Your task to perform on an android device: find which apps use the phone's location Image 0: 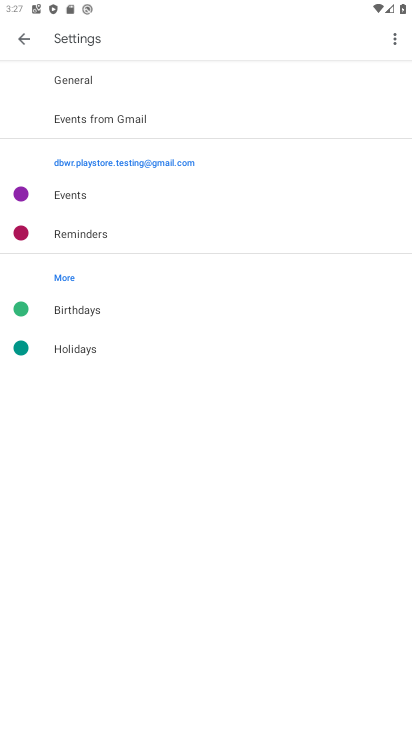
Step 0: press home button
Your task to perform on an android device: find which apps use the phone's location Image 1: 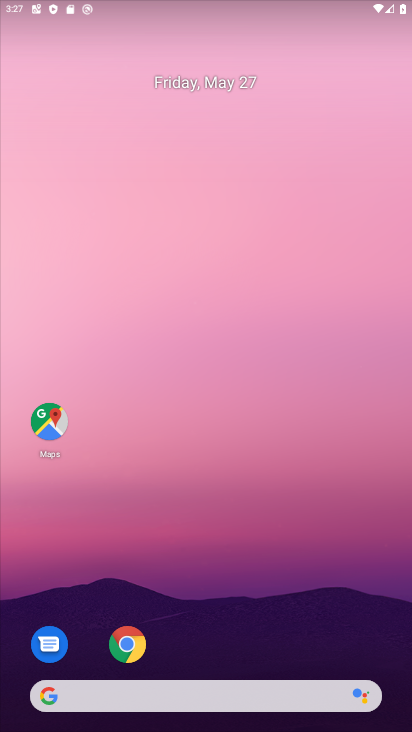
Step 1: drag from (211, 322) to (126, 84)
Your task to perform on an android device: find which apps use the phone's location Image 2: 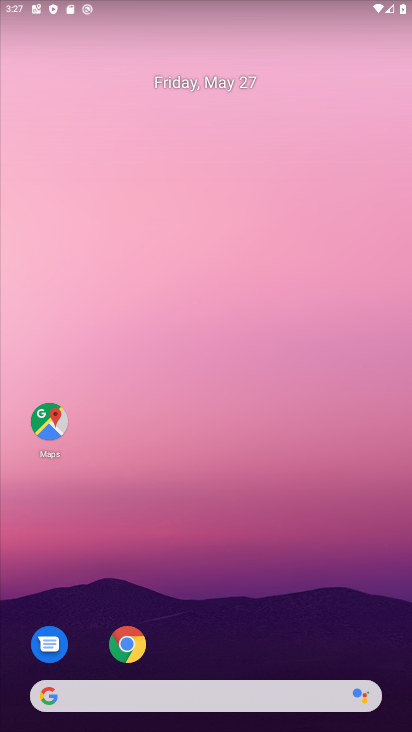
Step 2: drag from (240, 507) to (82, 0)
Your task to perform on an android device: find which apps use the phone's location Image 3: 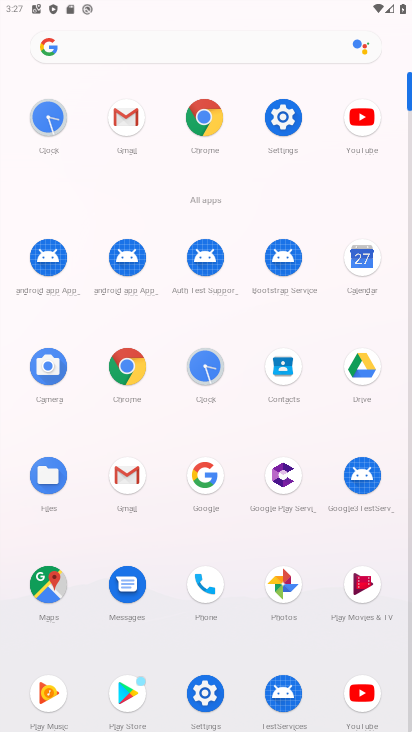
Step 3: click (209, 702)
Your task to perform on an android device: find which apps use the phone's location Image 4: 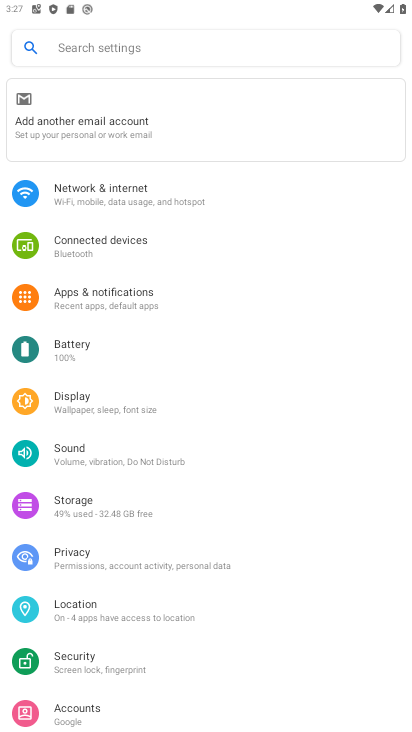
Step 4: click (134, 594)
Your task to perform on an android device: find which apps use the phone's location Image 5: 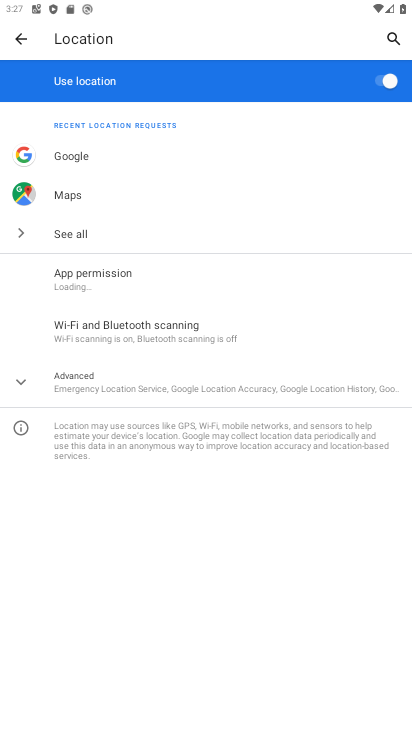
Step 5: click (113, 269)
Your task to perform on an android device: find which apps use the phone's location Image 6: 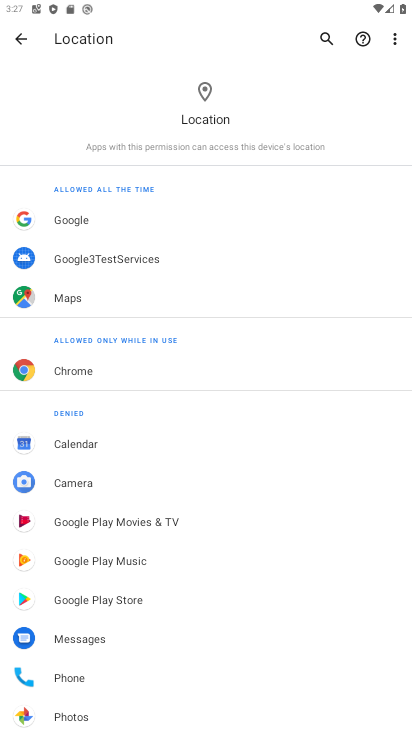
Step 6: task complete